Your task to perform on an android device: Search for pizza restaurants on Maps Image 0: 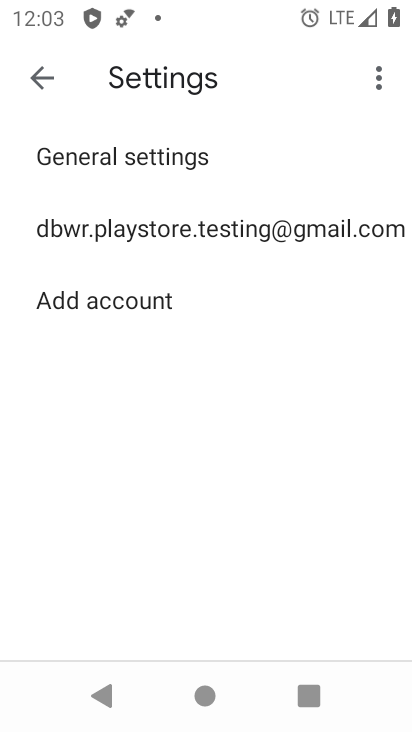
Step 0: press home button
Your task to perform on an android device: Search for pizza restaurants on Maps Image 1: 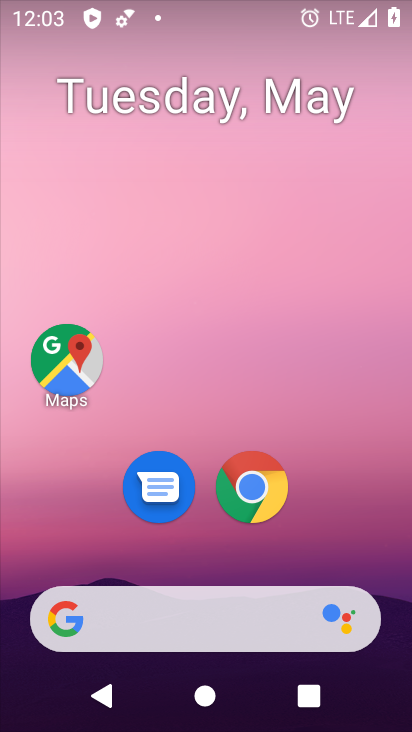
Step 1: click (71, 348)
Your task to perform on an android device: Search for pizza restaurants on Maps Image 2: 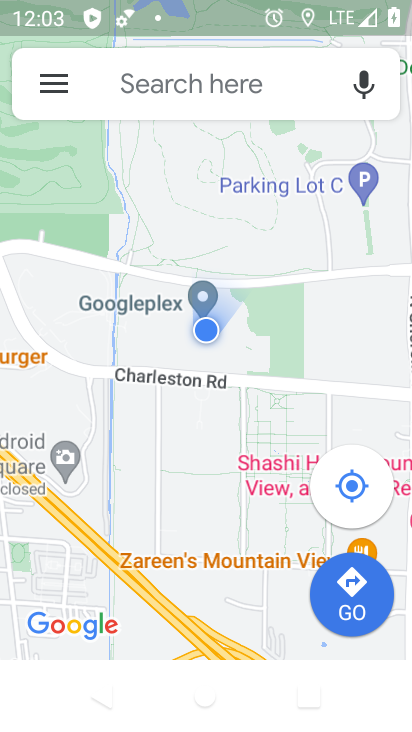
Step 2: click (193, 73)
Your task to perform on an android device: Search for pizza restaurants on Maps Image 3: 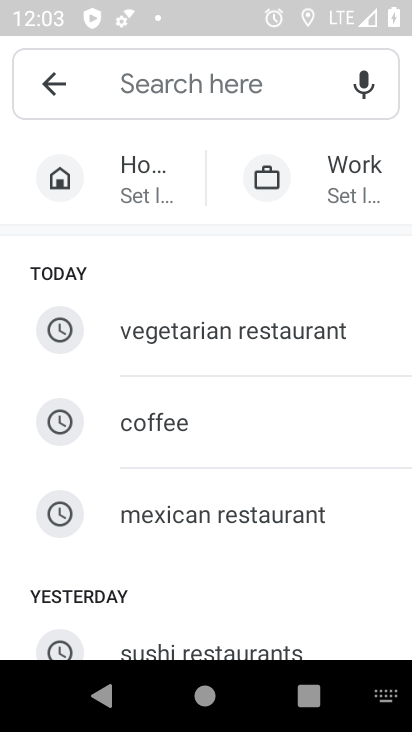
Step 3: drag from (82, 572) to (199, 213)
Your task to perform on an android device: Search for pizza restaurants on Maps Image 4: 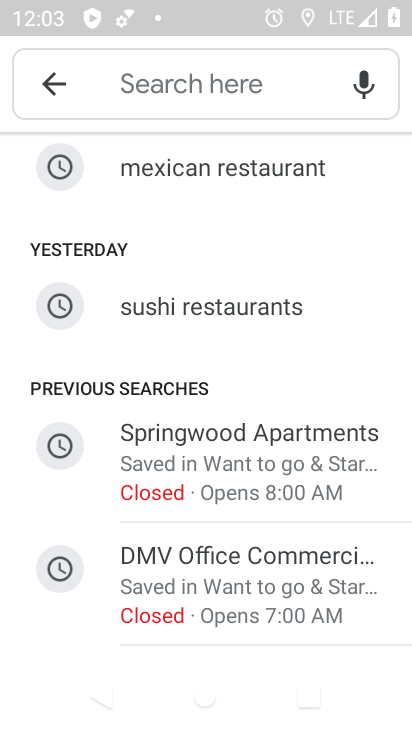
Step 4: drag from (186, 210) to (109, 641)
Your task to perform on an android device: Search for pizza restaurants on Maps Image 5: 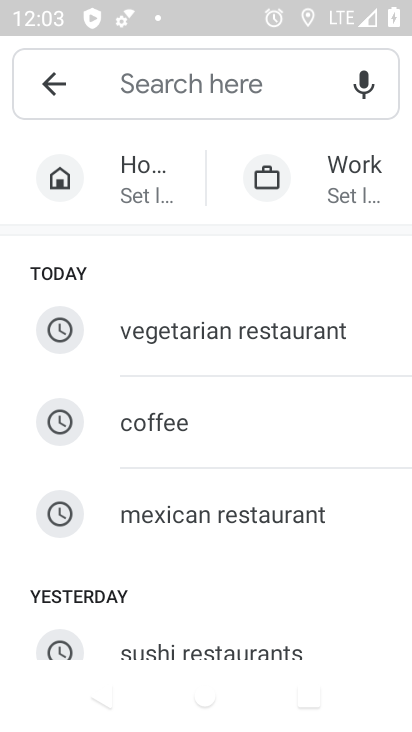
Step 5: click (205, 59)
Your task to perform on an android device: Search for pizza restaurants on Maps Image 6: 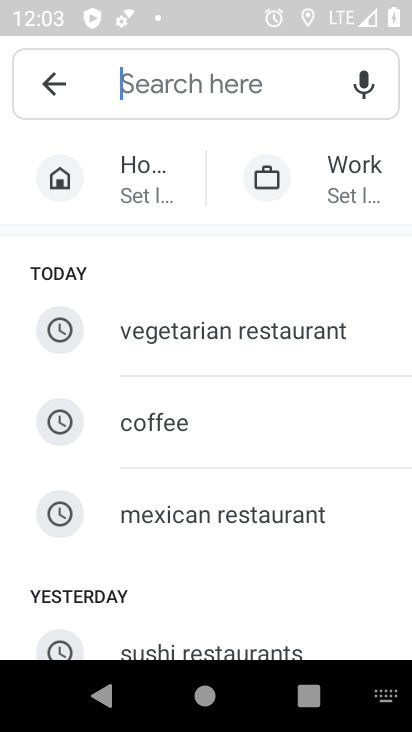
Step 6: type "pizza restaurants"
Your task to perform on an android device: Search for pizza restaurants on Maps Image 7: 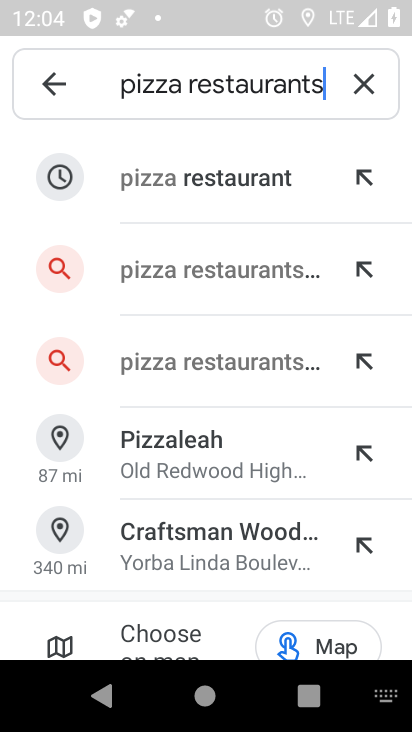
Step 7: click (251, 183)
Your task to perform on an android device: Search for pizza restaurants on Maps Image 8: 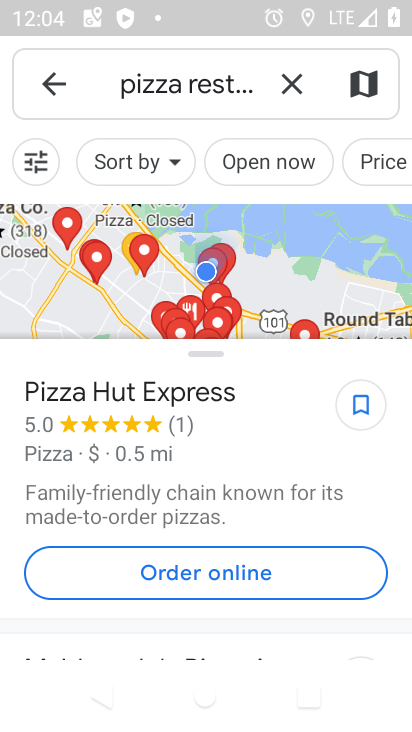
Step 8: task complete